Your task to perform on an android device: change the clock display to analog Image 0: 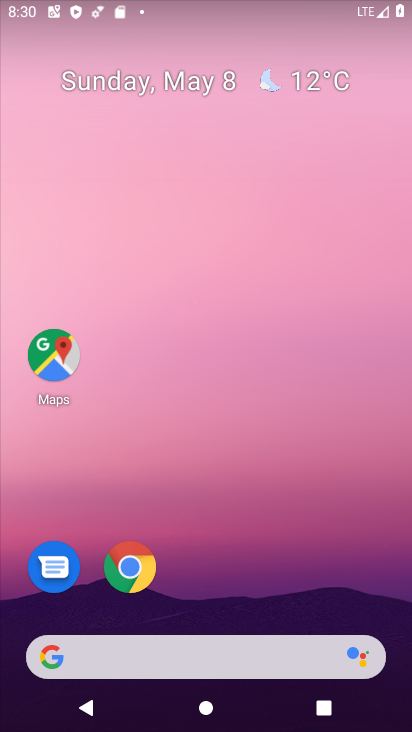
Step 0: drag from (199, 660) to (269, 94)
Your task to perform on an android device: change the clock display to analog Image 1: 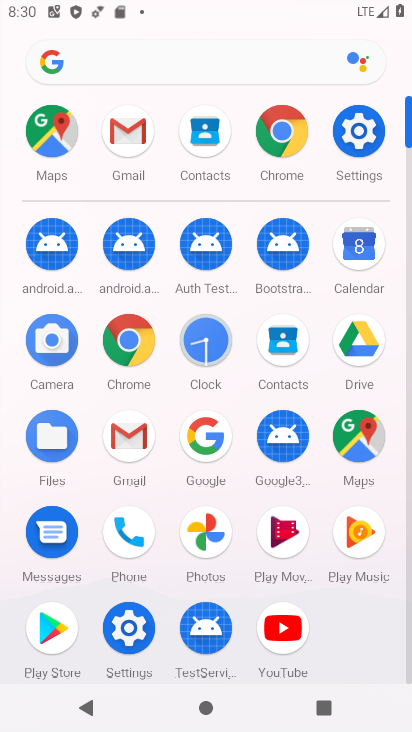
Step 1: click (215, 349)
Your task to perform on an android device: change the clock display to analog Image 2: 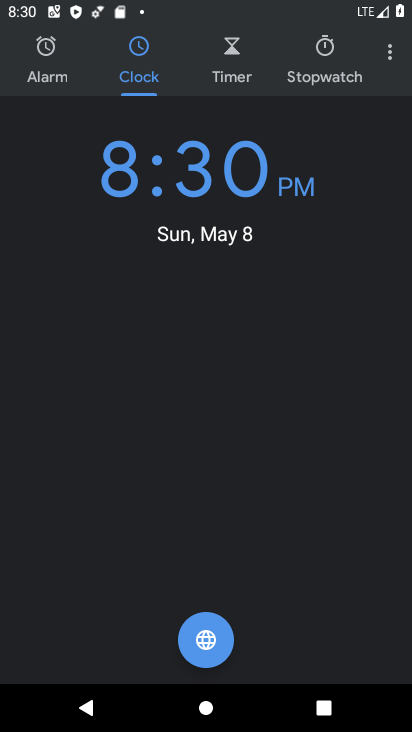
Step 2: click (400, 55)
Your task to perform on an android device: change the clock display to analog Image 3: 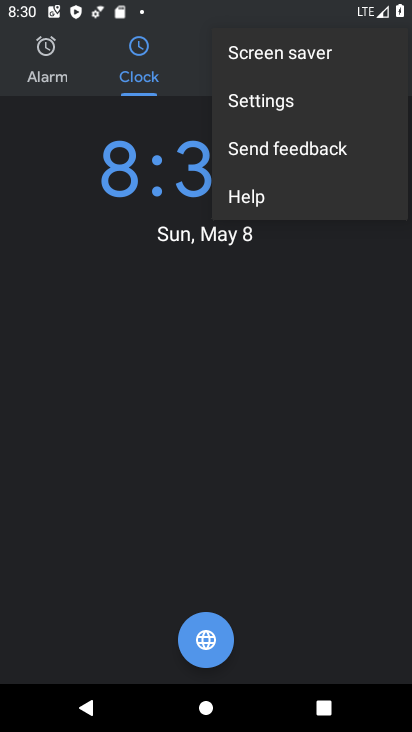
Step 3: click (281, 94)
Your task to perform on an android device: change the clock display to analog Image 4: 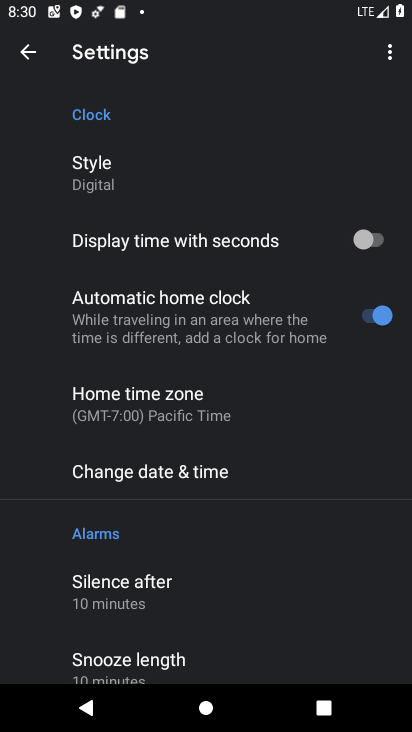
Step 4: click (89, 171)
Your task to perform on an android device: change the clock display to analog Image 5: 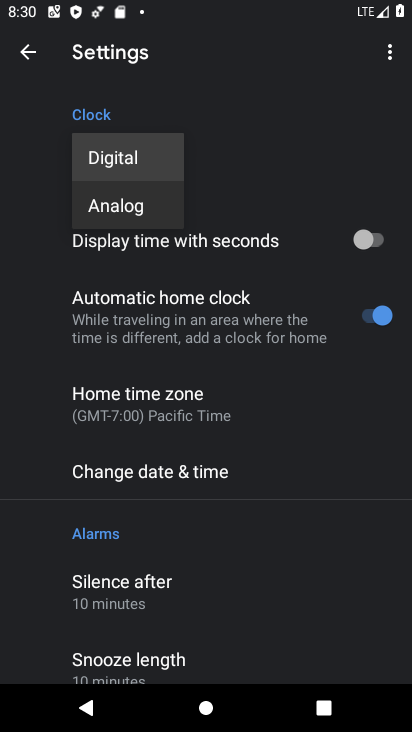
Step 5: click (126, 203)
Your task to perform on an android device: change the clock display to analog Image 6: 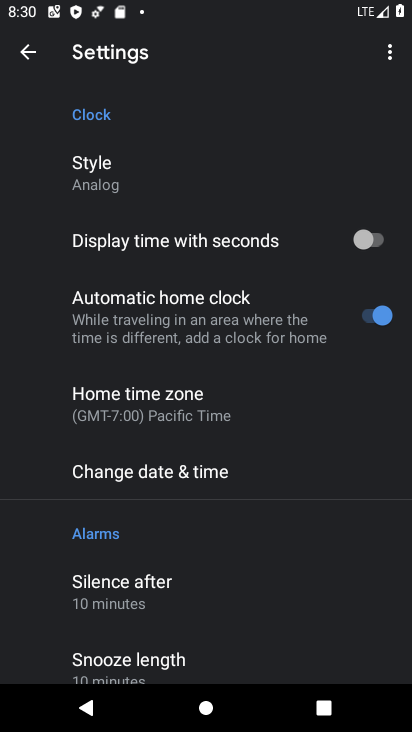
Step 6: task complete